Your task to perform on an android device: toggle location history Image 0: 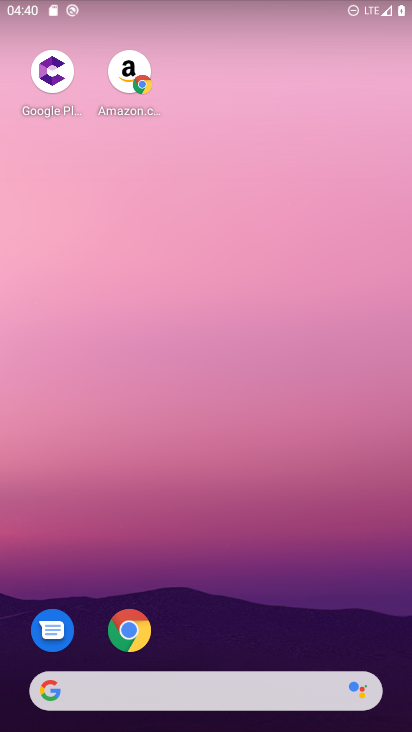
Step 0: drag from (286, 682) to (314, 4)
Your task to perform on an android device: toggle location history Image 1: 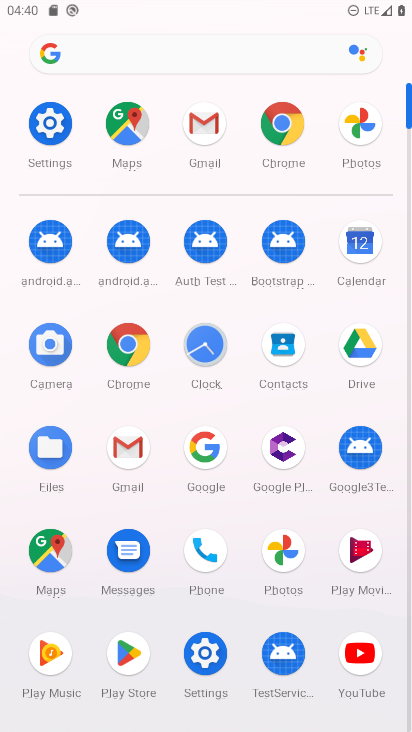
Step 1: click (35, 122)
Your task to perform on an android device: toggle location history Image 2: 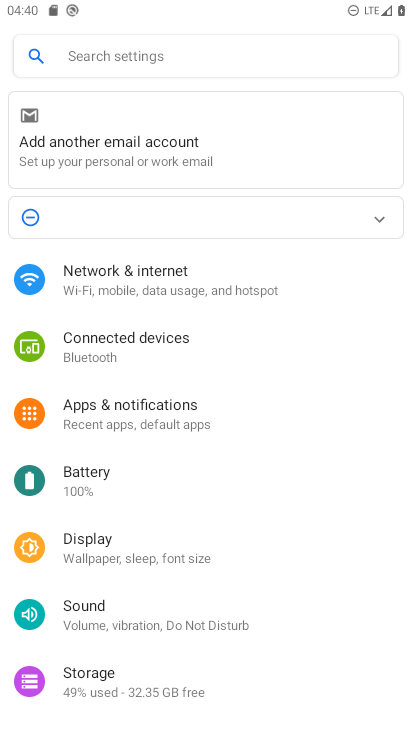
Step 2: drag from (229, 675) to (311, 219)
Your task to perform on an android device: toggle location history Image 3: 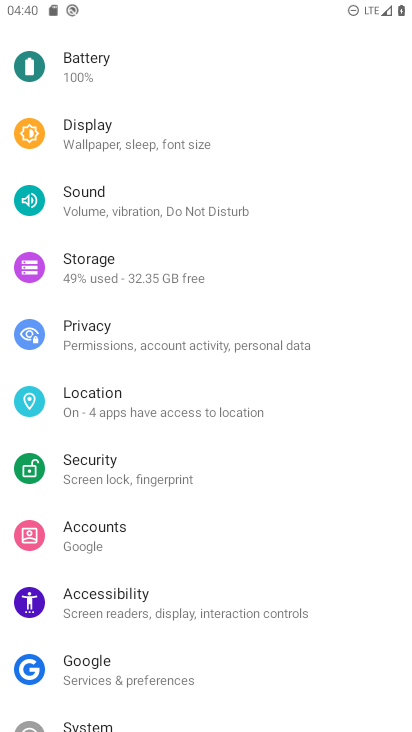
Step 3: click (203, 405)
Your task to perform on an android device: toggle location history Image 4: 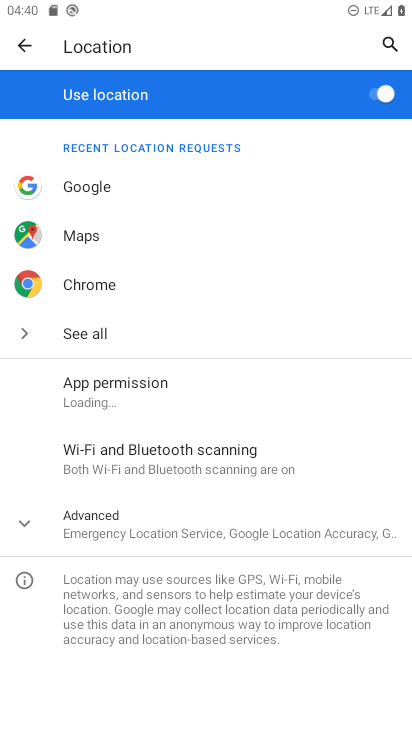
Step 4: click (222, 525)
Your task to perform on an android device: toggle location history Image 5: 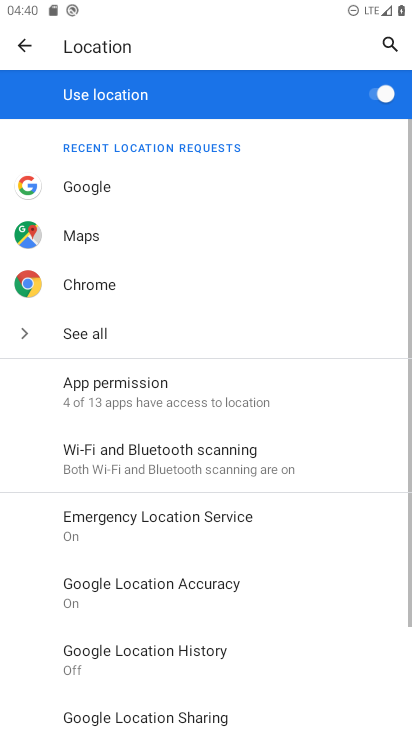
Step 5: click (201, 650)
Your task to perform on an android device: toggle location history Image 6: 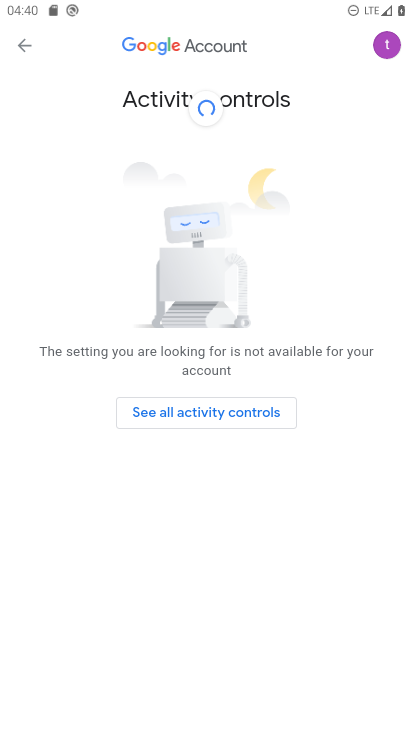
Step 6: click (249, 412)
Your task to perform on an android device: toggle location history Image 7: 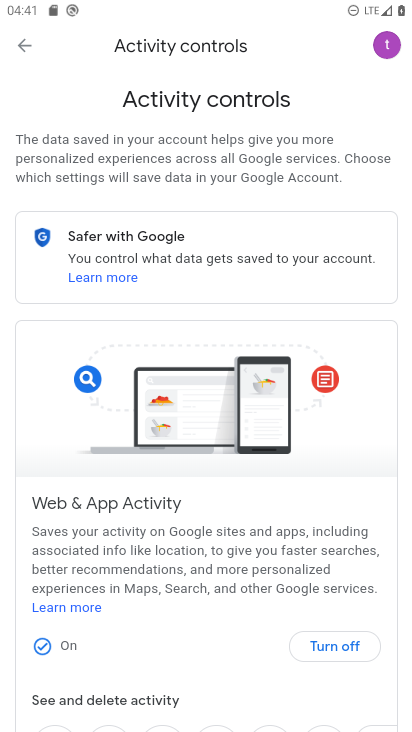
Step 7: click (338, 647)
Your task to perform on an android device: toggle location history Image 8: 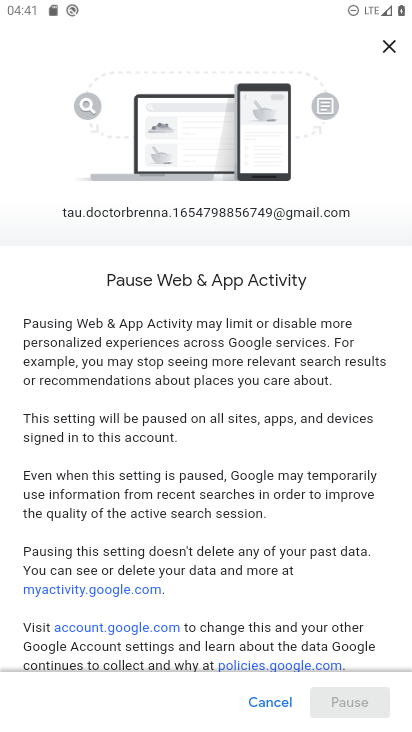
Step 8: drag from (321, 509) to (302, 45)
Your task to perform on an android device: toggle location history Image 9: 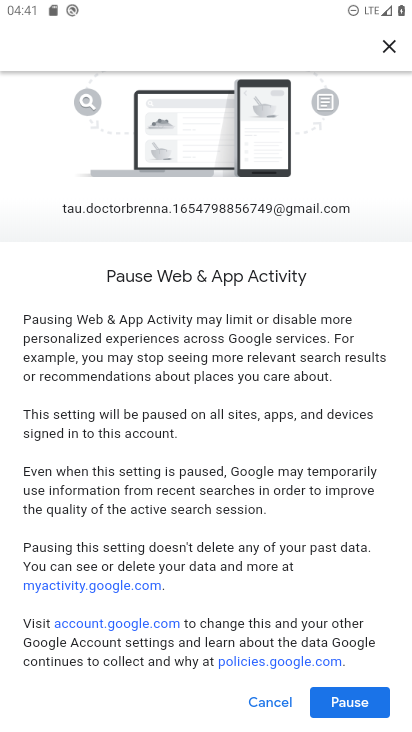
Step 9: click (355, 699)
Your task to perform on an android device: toggle location history Image 10: 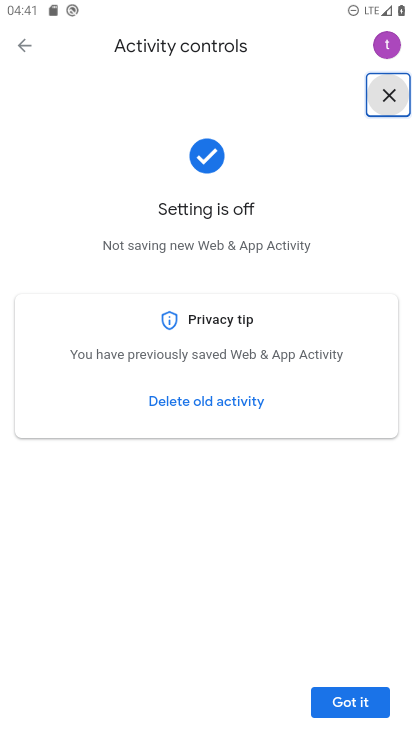
Step 10: task complete